Your task to perform on an android device: allow cookies in the chrome app Image 0: 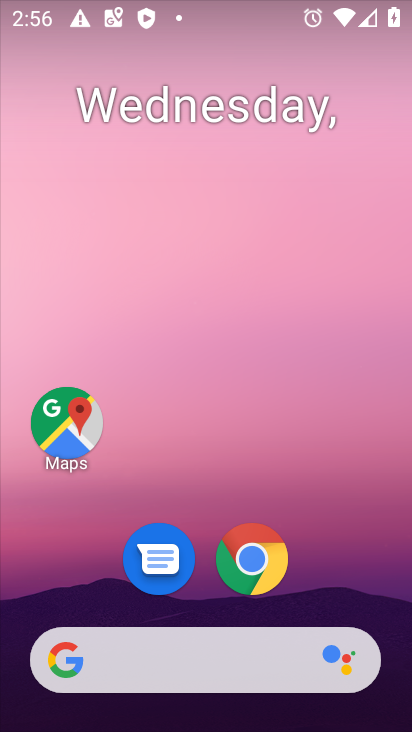
Step 0: click (253, 549)
Your task to perform on an android device: allow cookies in the chrome app Image 1: 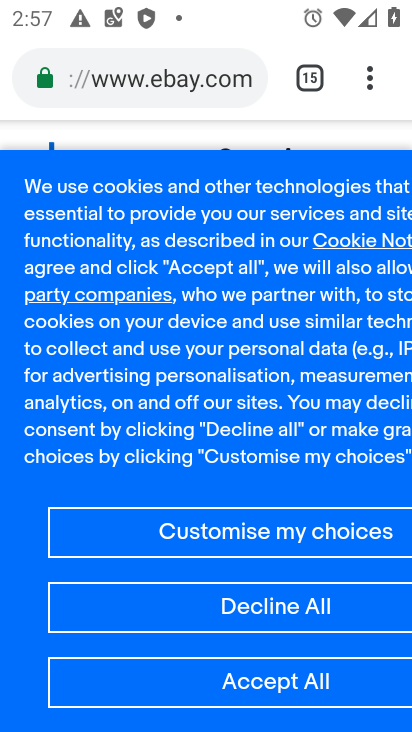
Step 1: click (371, 82)
Your task to perform on an android device: allow cookies in the chrome app Image 2: 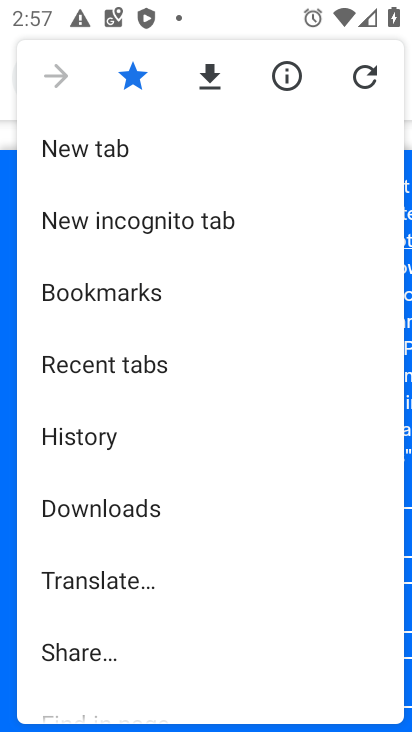
Step 2: drag from (103, 659) to (109, 266)
Your task to perform on an android device: allow cookies in the chrome app Image 3: 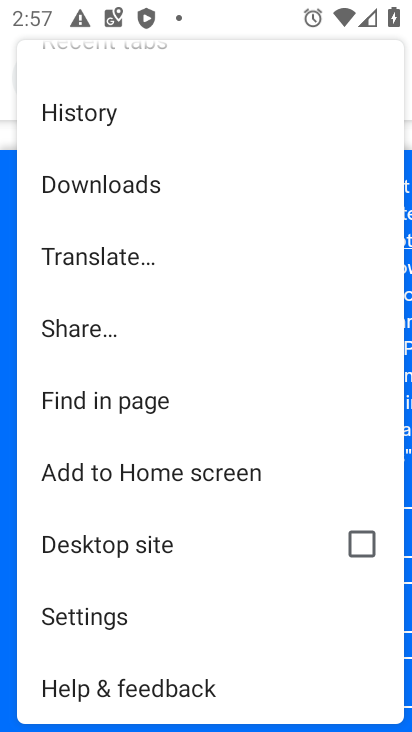
Step 3: click (89, 616)
Your task to perform on an android device: allow cookies in the chrome app Image 4: 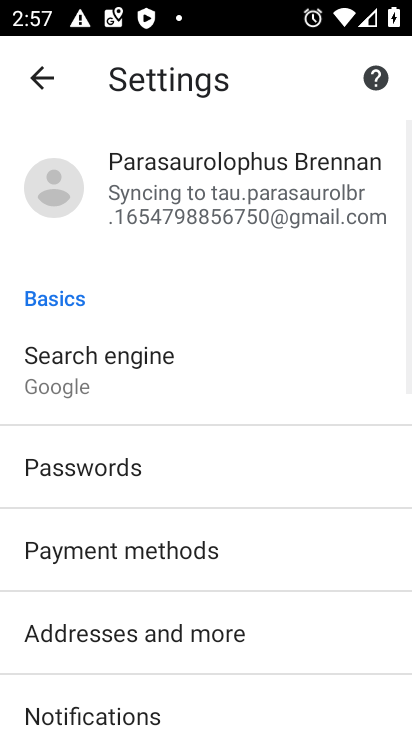
Step 4: drag from (137, 667) to (143, 220)
Your task to perform on an android device: allow cookies in the chrome app Image 5: 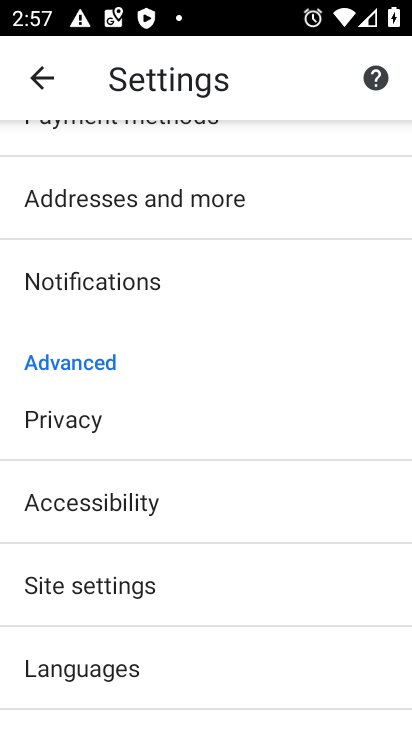
Step 5: click (101, 587)
Your task to perform on an android device: allow cookies in the chrome app Image 6: 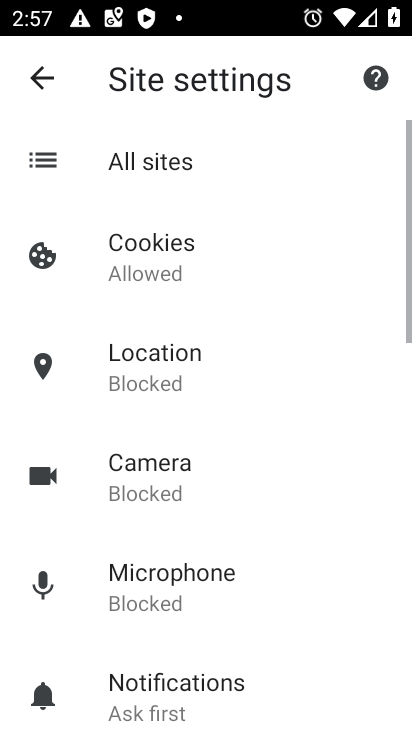
Step 6: click (149, 258)
Your task to perform on an android device: allow cookies in the chrome app Image 7: 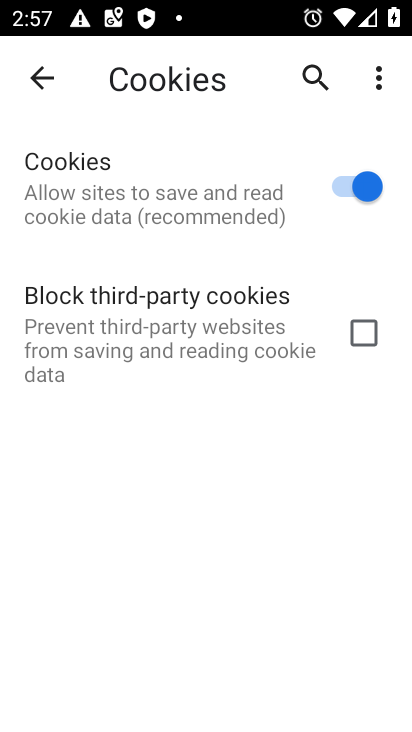
Step 7: task complete